Your task to perform on an android device: change alarm snooze length Image 0: 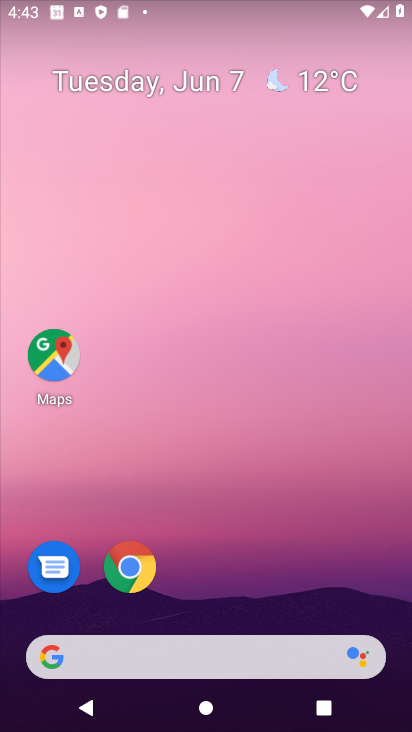
Step 0: drag from (282, 675) to (282, 46)
Your task to perform on an android device: change alarm snooze length Image 1: 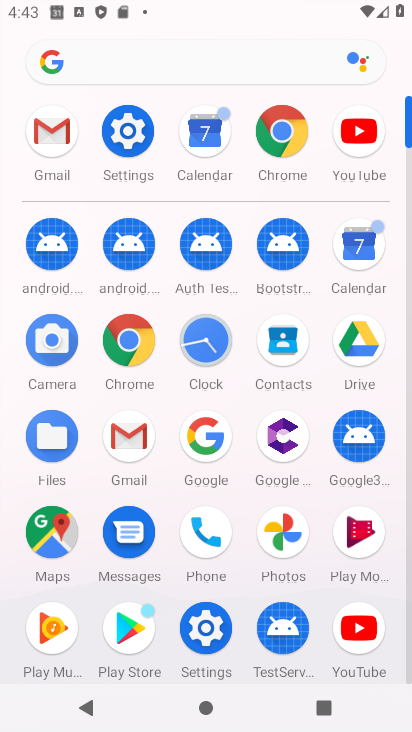
Step 1: click (204, 333)
Your task to perform on an android device: change alarm snooze length Image 2: 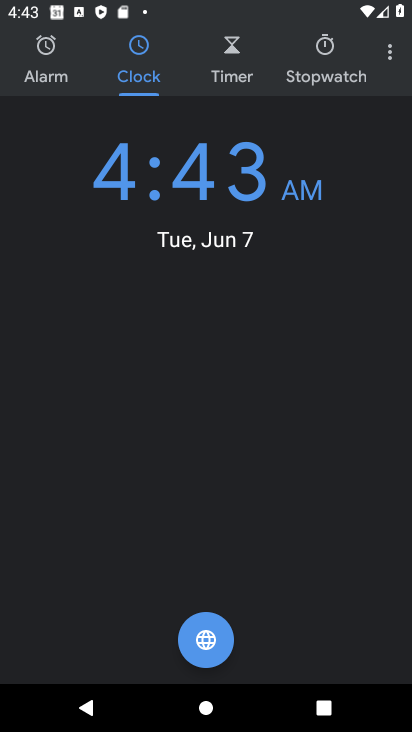
Step 2: click (388, 53)
Your task to perform on an android device: change alarm snooze length Image 3: 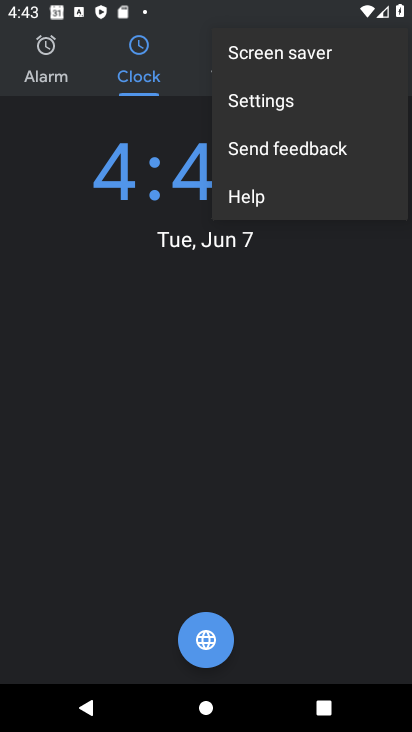
Step 3: click (262, 99)
Your task to perform on an android device: change alarm snooze length Image 4: 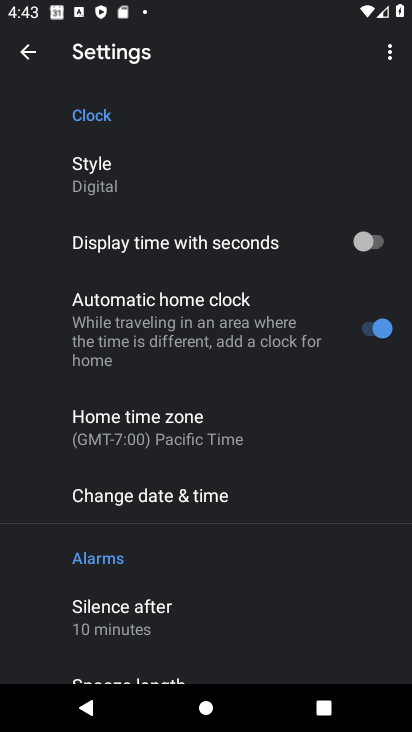
Step 4: drag from (238, 537) to (256, 124)
Your task to perform on an android device: change alarm snooze length Image 5: 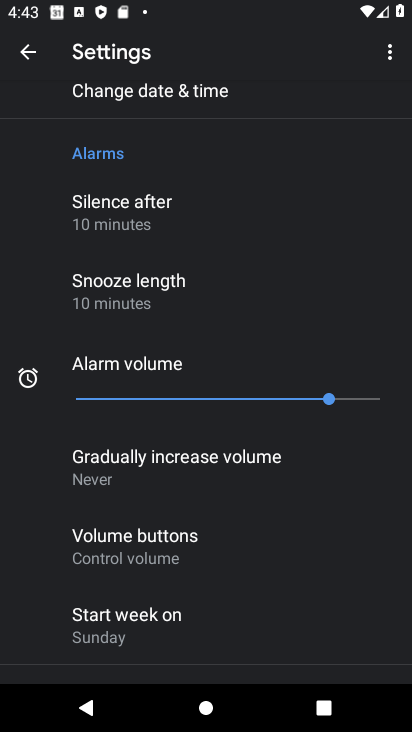
Step 5: click (173, 291)
Your task to perform on an android device: change alarm snooze length Image 6: 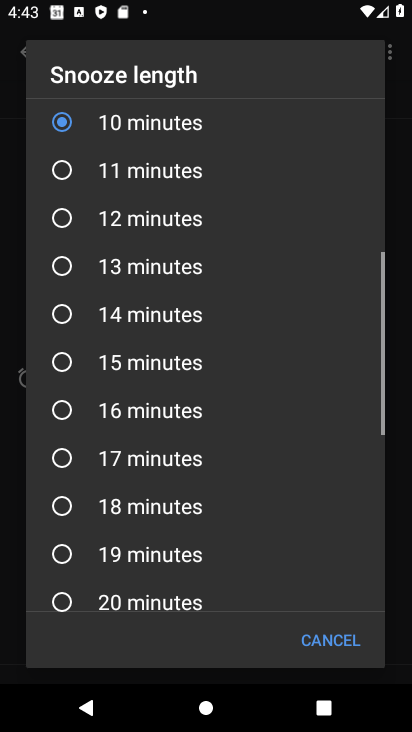
Step 6: click (68, 224)
Your task to perform on an android device: change alarm snooze length Image 7: 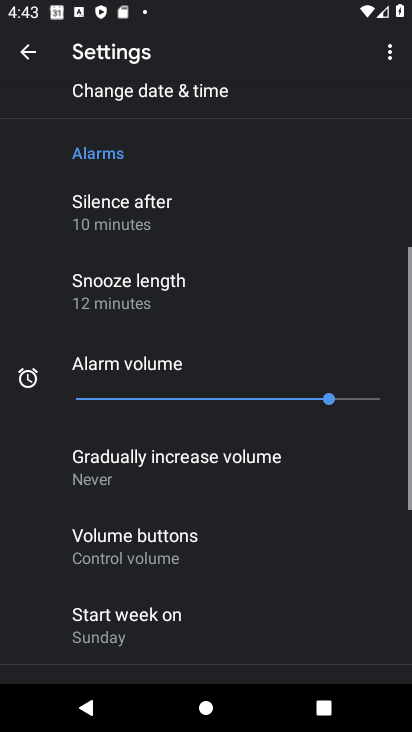
Step 7: task complete